Your task to perform on an android device: Open Youtube and go to "Your channel" Image 0: 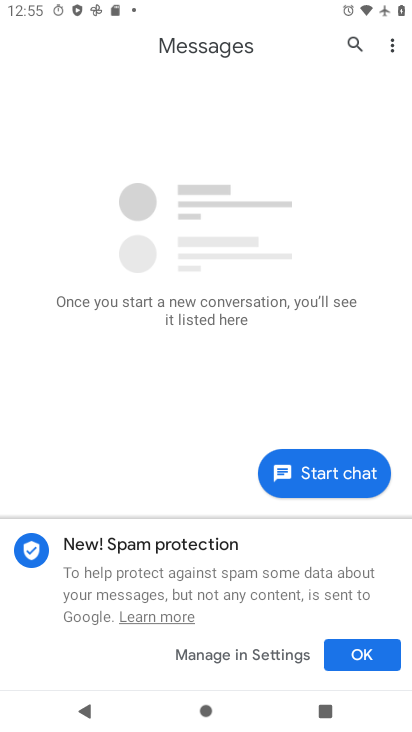
Step 0: press home button
Your task to perform on an android device: Open Youtube and go to "Your channel" Image 1: 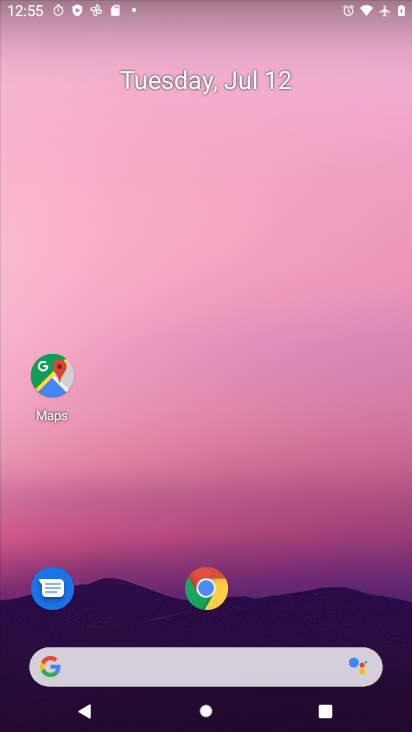
Step 1: drag from (139, 661) to (292, 38)
Your task to perform on an android device: Open Youtube and go to "Your channel" Image 2: 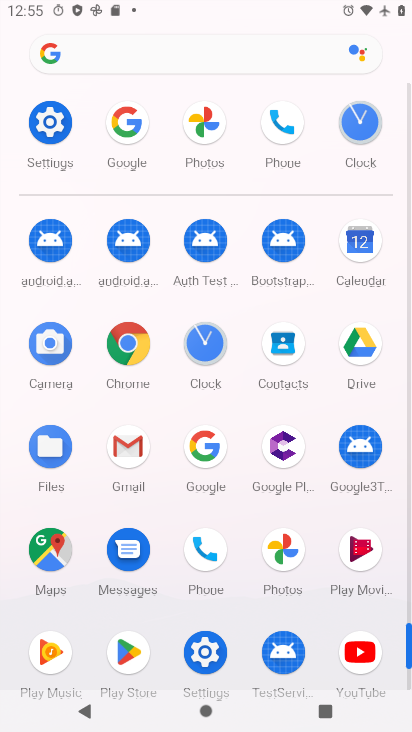
Step 2: click (362, 654)
Your task to perform on an android device: Open Youtube and go to "Your channel" Image 3: 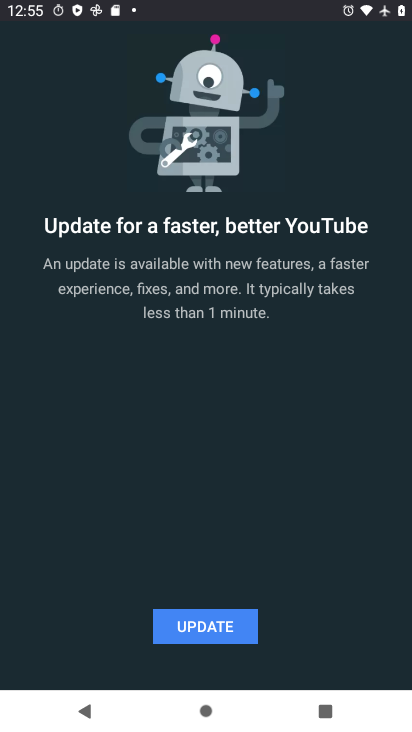
Step 3: click (198, 626)
Your task to perform on an android device: Open Youtube and go to "Your channel" Image 4: 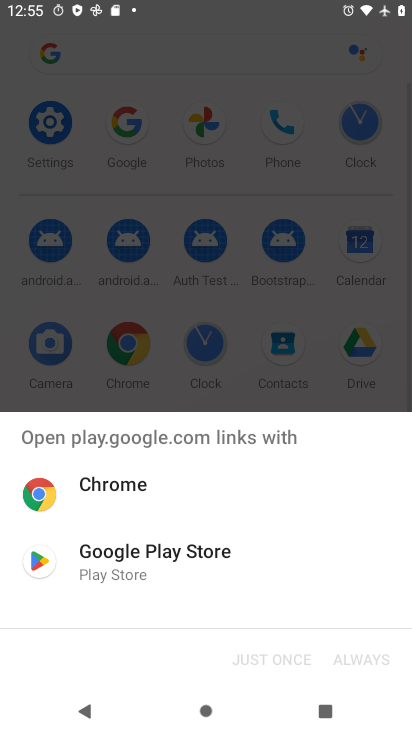
Step 4: click (148, 564)
Your task to perform on an android device: Open Youtube and go to "Your channel" Image 5: 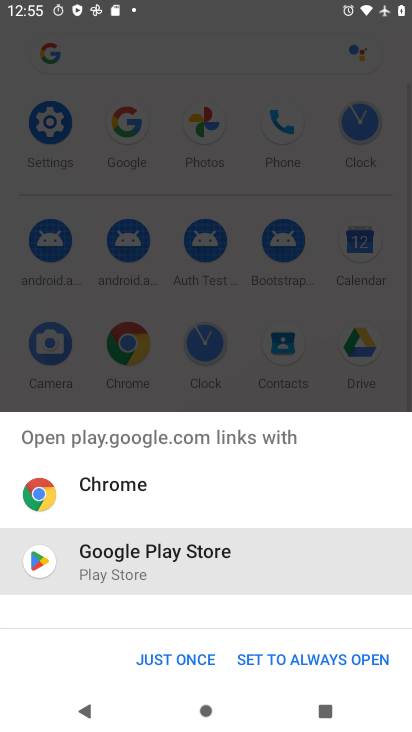
Step 5: click (200, 659)
Your task to perform on an android device: Open Youtube and go to "Your channel" Image 6: 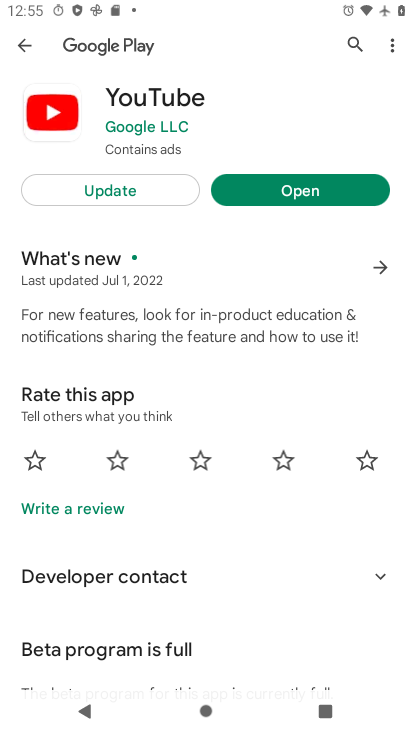
Step 6: click (130, 193)
Your task to perform on an android device: Open Youtube and go to "Your channel" Image 7: 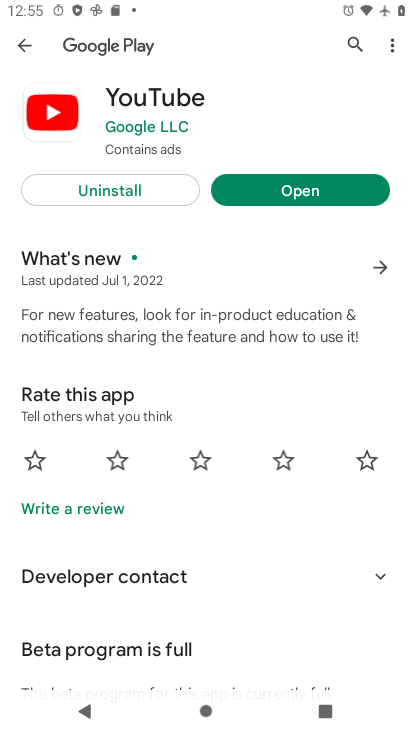
Step 7: click (296, 196)
Your task to perform on an android device: Open Youtube and go to "Your channel" Image 8: 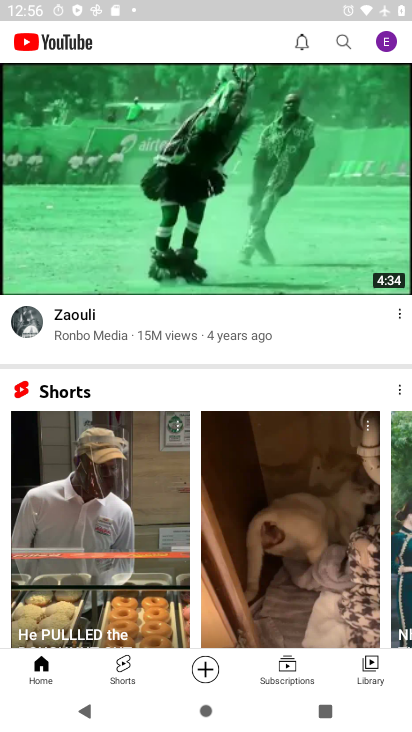
Step 8: click (386, 41)
Your task to perform on an android device: Open Youtube and go to "Your channel" Image 9: 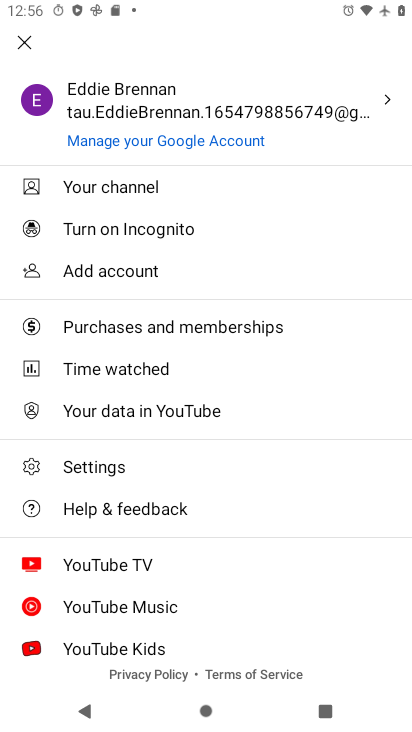
Step 9: click (107, 188)
Your task to perform on an android device: Open Youtube and go to "Your channel" Image 10: 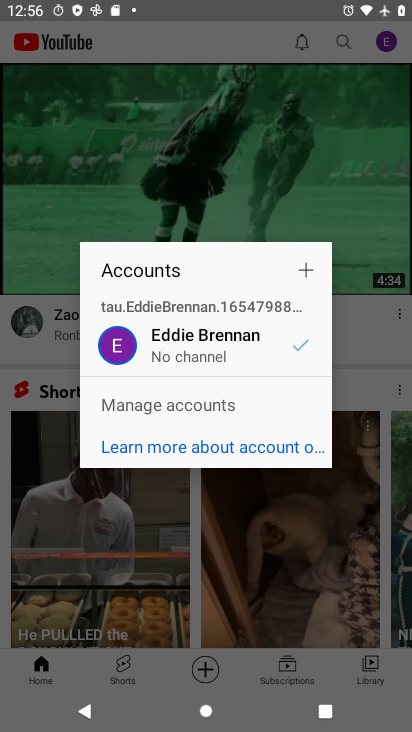
Step 10: click (383, 41)
Your task to perform on an android device: Open Youtube and go to "Your channel" Image 11: 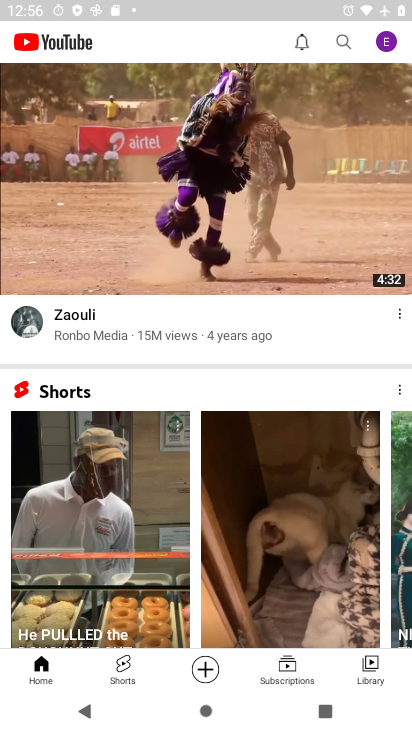
Step 11: task complete